Your task to perform on an android device: add a contact Image 0: 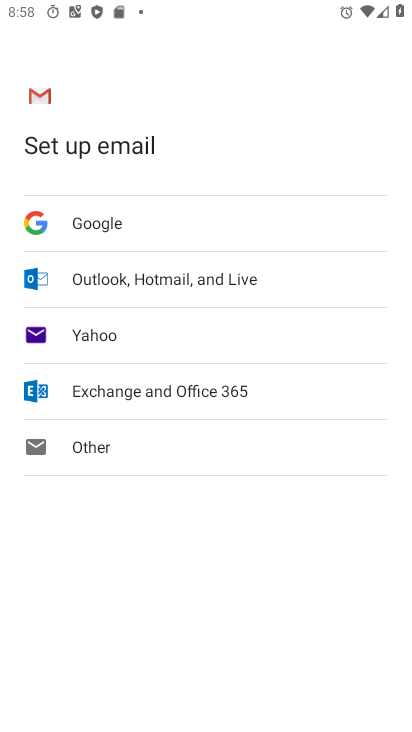
Step 0: press home button
Your task to perform on an android device: add a contact Image 1: 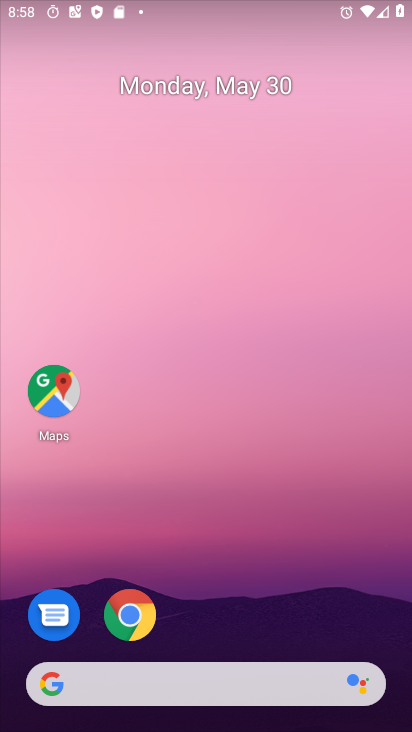
Step 1: drag from (337, 498) to (382, 58)
Your task to perform on an android device: add a contact Image 2: 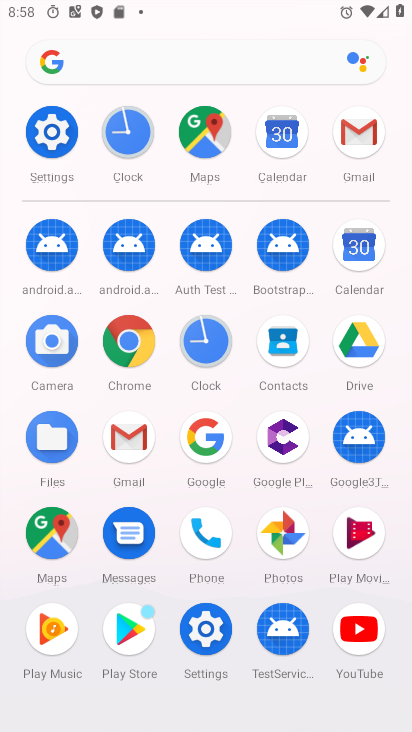
Step 2: click (219, 537)
Your task to perform on an android device: add a contact Image 3: 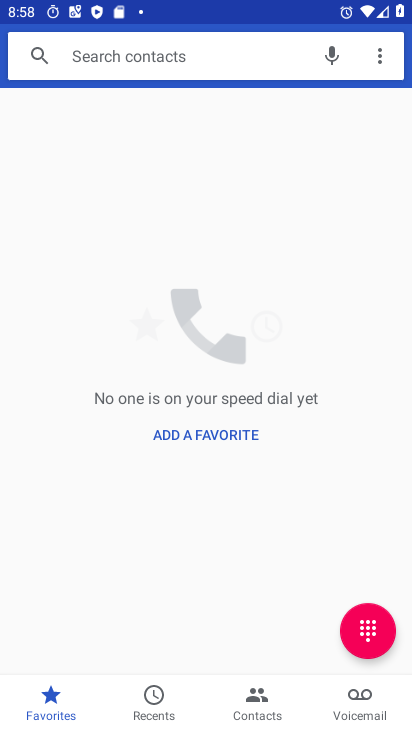
Step 3: click (251, 706)
Your task to perform on an android device: add a contact Image 4: 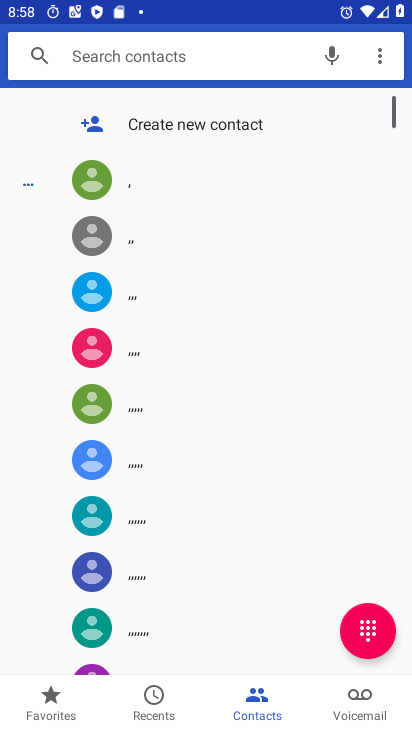
Step 4: click (218, 132)
Your task to perform on an android device: add a contact Image 5: 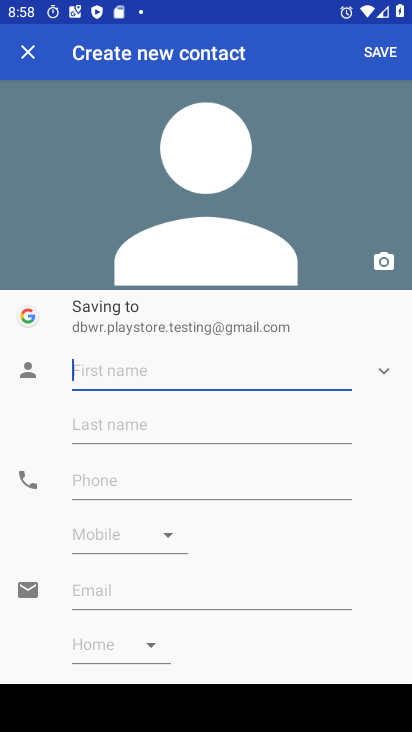
Step 5: type "tryryr"
Your task to perform on an android device: add a contact Image 6: 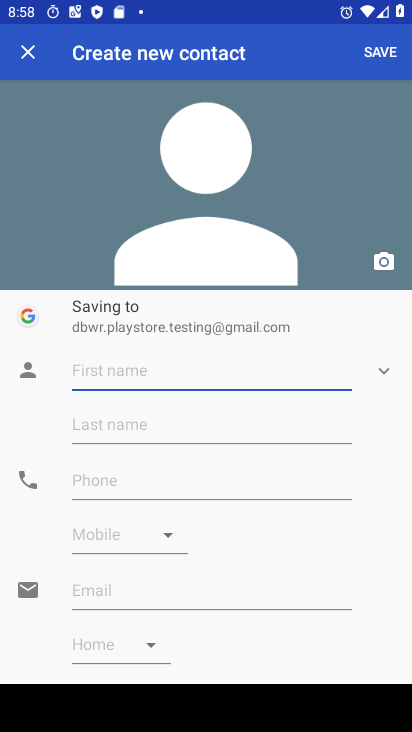
Step 6: click (124, 480)
Your task to perform on an android device: add a contact Image 7: 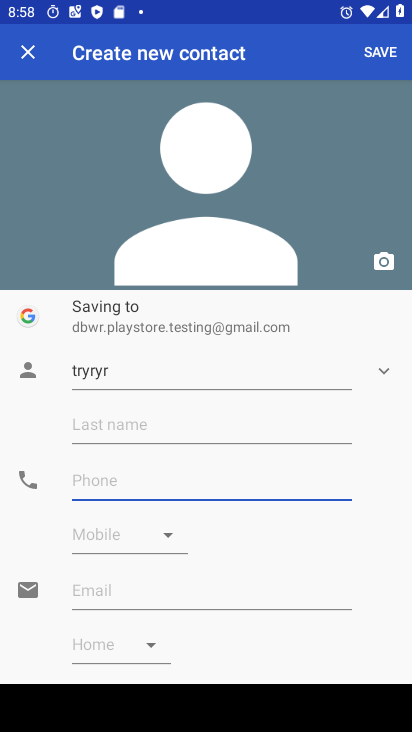
Step 7: type "536363663"
Your task to perform on an android device: add a contact Image 8: 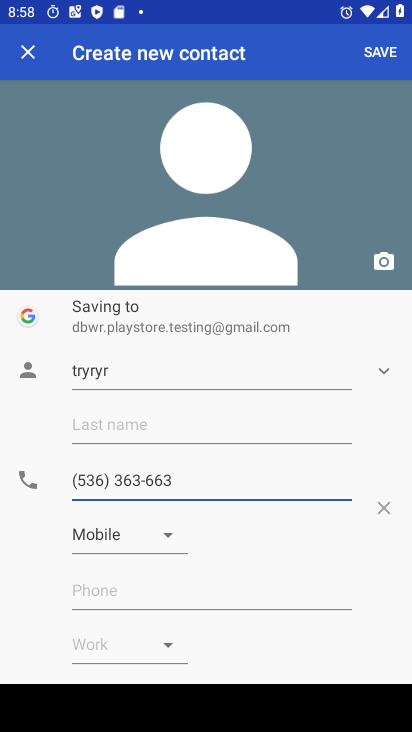
Step 8: click (375, 56)
Your task to perform on an android device: add a contact Image 9: 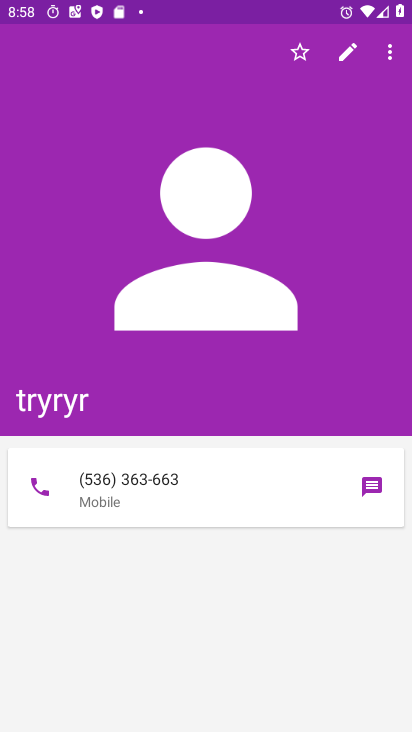
Step 9: task complete